Your task to perform on an android device: change notification settings in the gmail app Image 0: 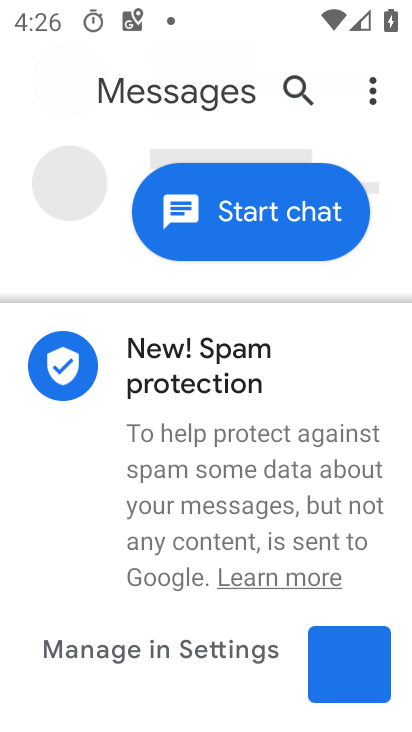
Step 0: press back button
Your task to perform on an android device: change notification settings in the gmail app Image 1: 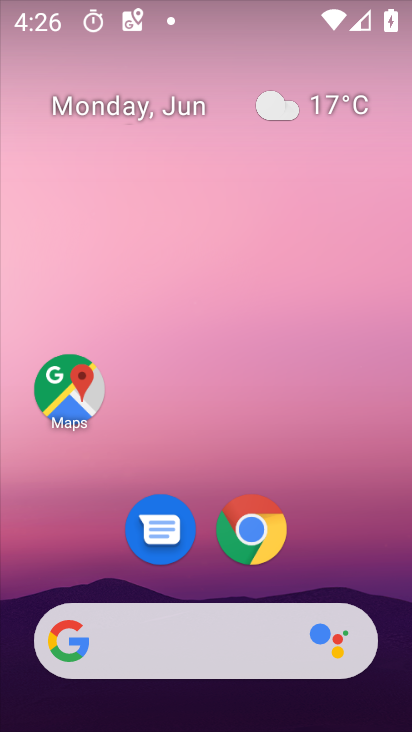
Step 1: drag from (356, 516) to (277, 21)
Your task to perform on an android device: change notification settings in the gmail app Image 2: 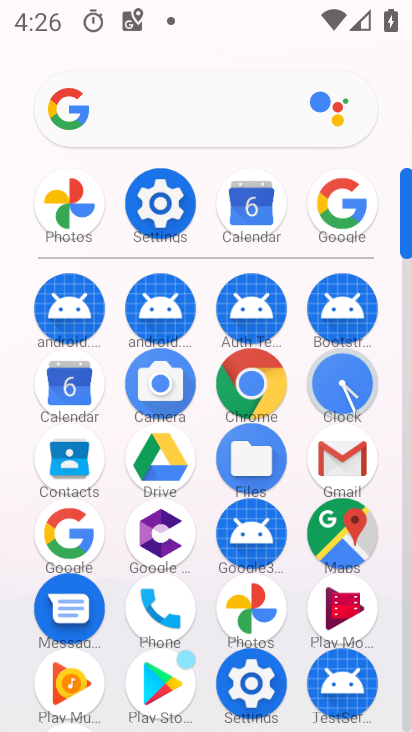
Step 2: click (337, 456)
Your task to perform on an android device: change notification settings in the gmail app Image 3: 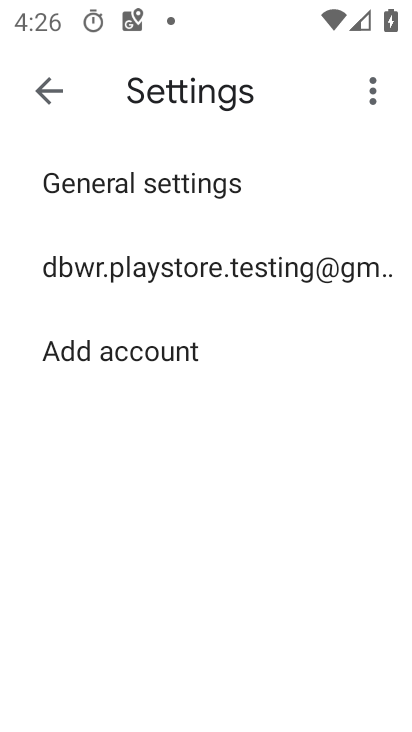
Step 3: click (156, 271)
Your task to perform on an android device: change notification settings in the gmail app Image 4: 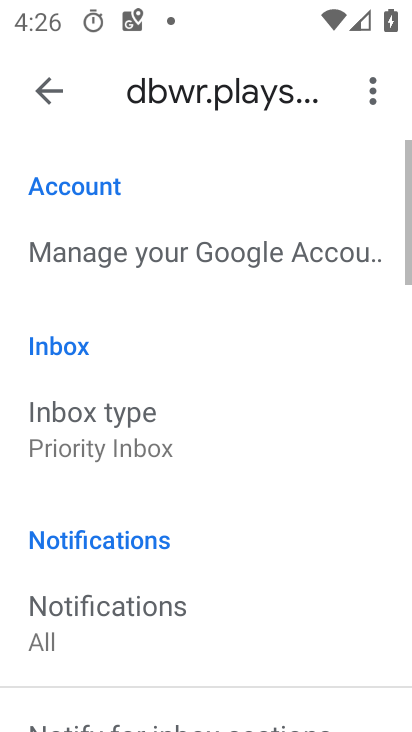
Step 4: drag from (110, 647) to (237, 304)
Your task to perform on an android device: change notification settings in the gmail app Image 5: 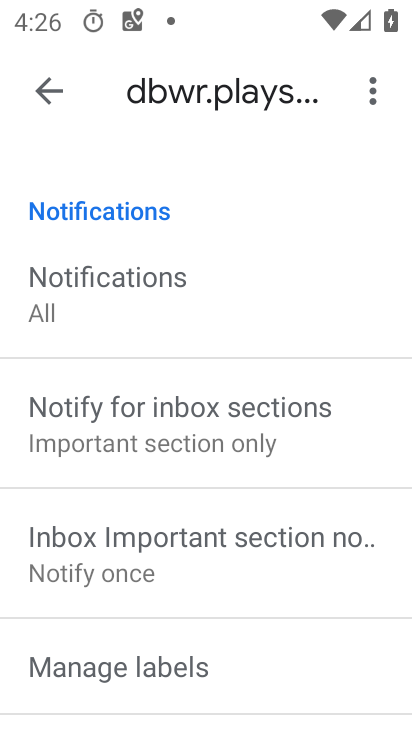
Step 5: drag from (171, 643) to (266, 401)
Your task to perform on an android device: change notification settings in the gmail app Image 6: 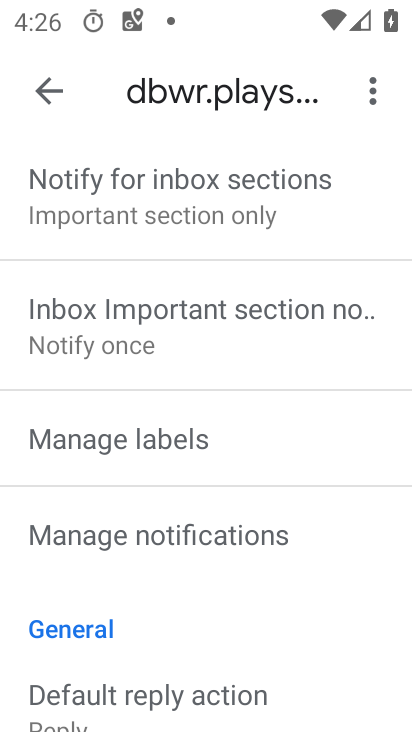
Step 6: click (227, 535)
Your task to perform on an android device: change notification settings in the gmail app Image 7: 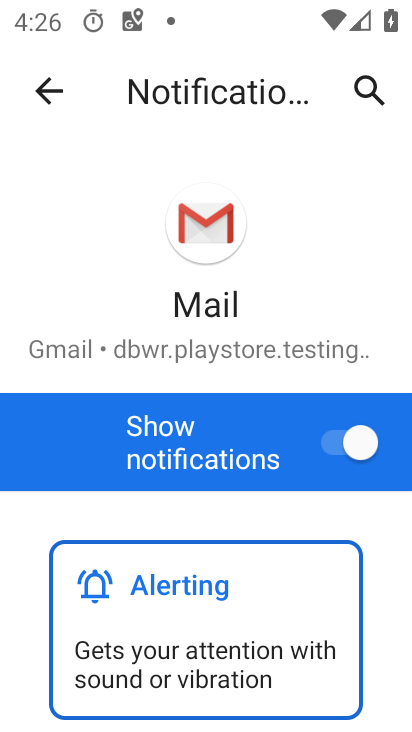
Step 7: click (346, 457)
Your task to perform on an android device: change notification settings in the gmail app Image 8: 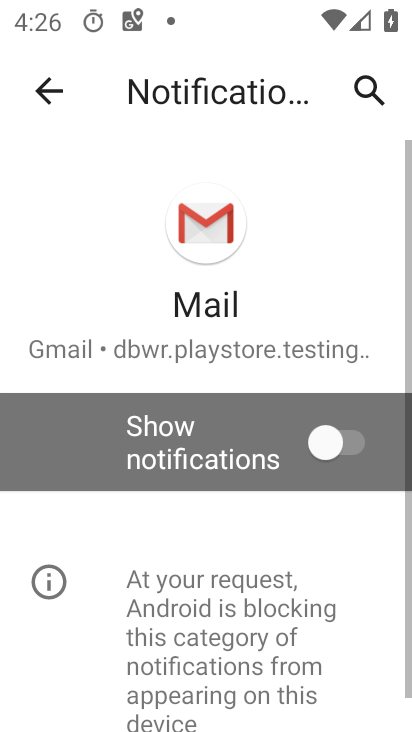
Step 8: task complete